Your task to perform on an android device: find which apps use the phone's location Image 0: 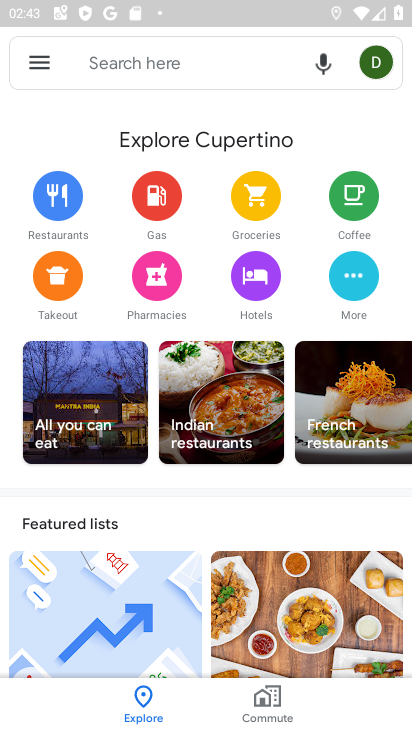
Step 0: press home button
Your task to perform on an android device: find which apps use the phone's location Image 1: 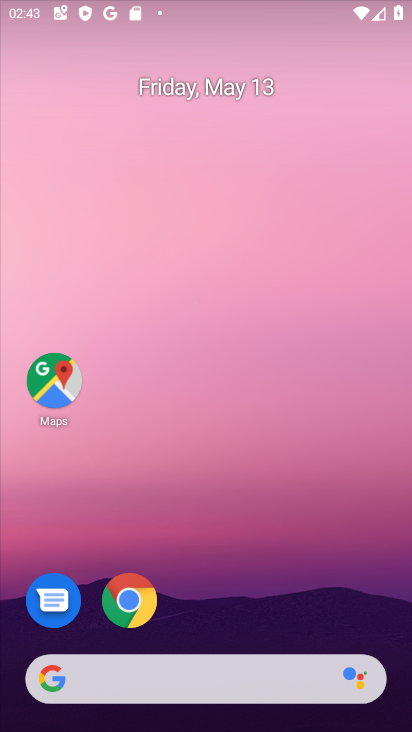
Step 1: drag from (225, 595) to (281, 206)
Your task to perform on an android device: find which apps use the phone's location Image 2: 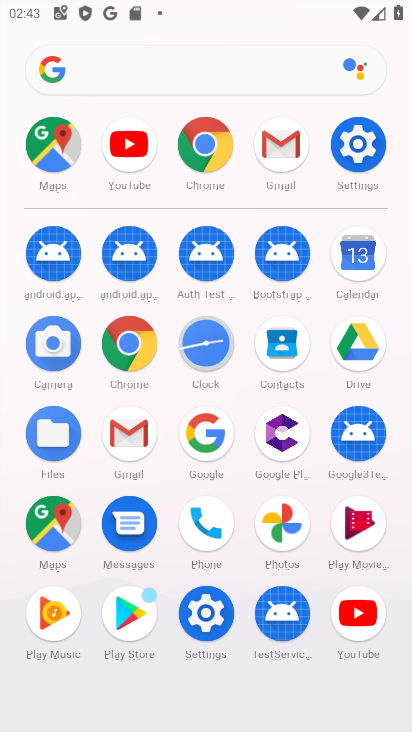
Step 2: click (358, 146)
Your task to perform on an android device: find which apps use the phone's location Image 3: 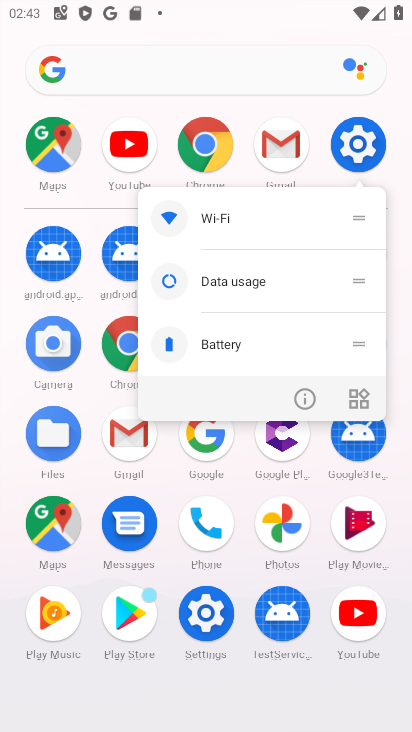
Step 3: click (305, 413)
Your task to perform on an android device: find which apps use the phone's location Image 4: 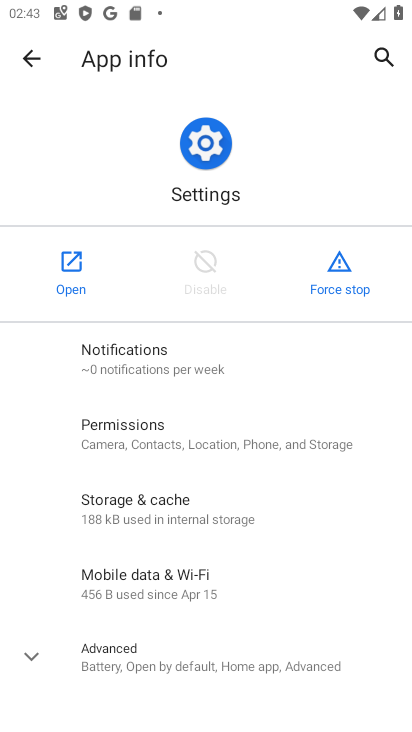
Step 4: click (73, 258)
Your task to perform on an android device: find which apps use the phone's location Image 5: 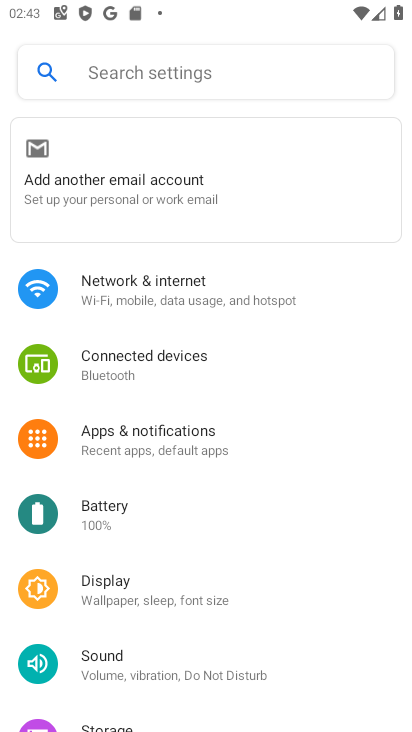
Step 5: drag from (226, 574) to (262, 84)
Your task to perform on an android device: find which apps use the phone's location Image 6: 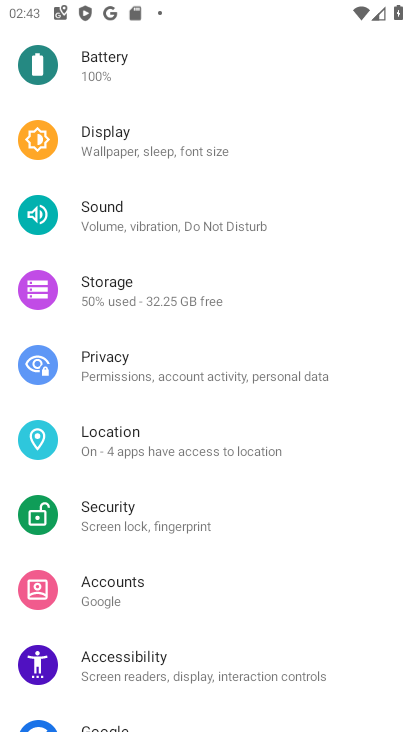
Step 6: click (137, 457)
Your task to perform on an android device: find which apps use the phone's location Image 7: 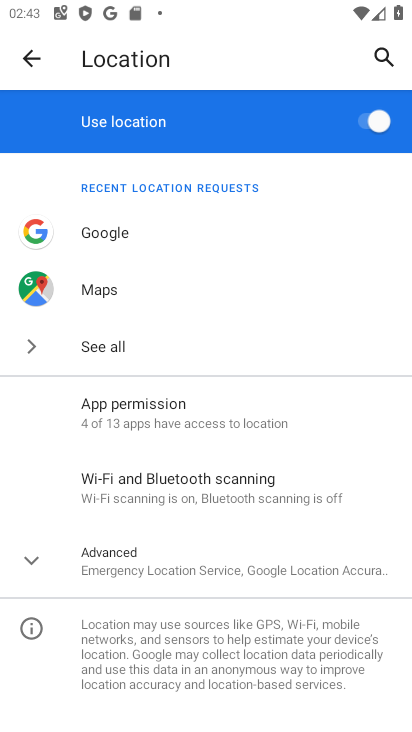
Step 7: click (202, 415)
Your task to perform on an android device: find which apps use the phone's location Image 8: 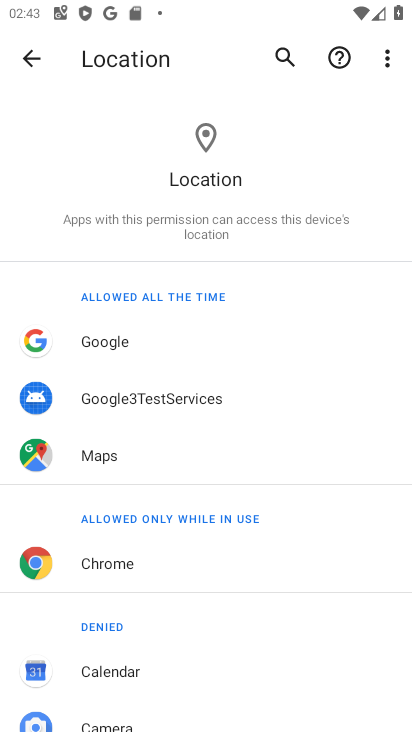
Step 8: task complete